Your task to perform on an android device: Search for 3d printed chess sets on Etsy. Image 0: 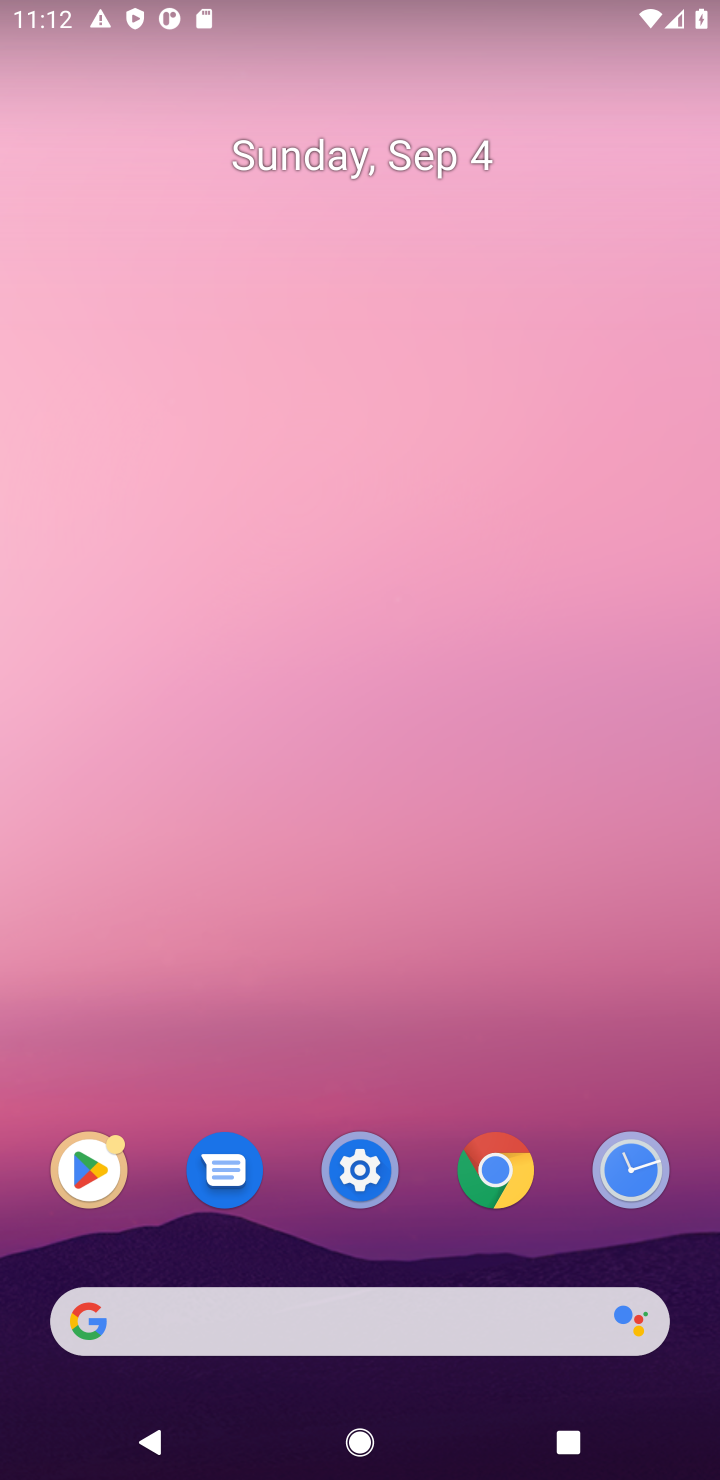
Step 0: click (336, 1316)
Your task to perform on an android device: Search for 3d printed chess sets on Etsy. Image 1: 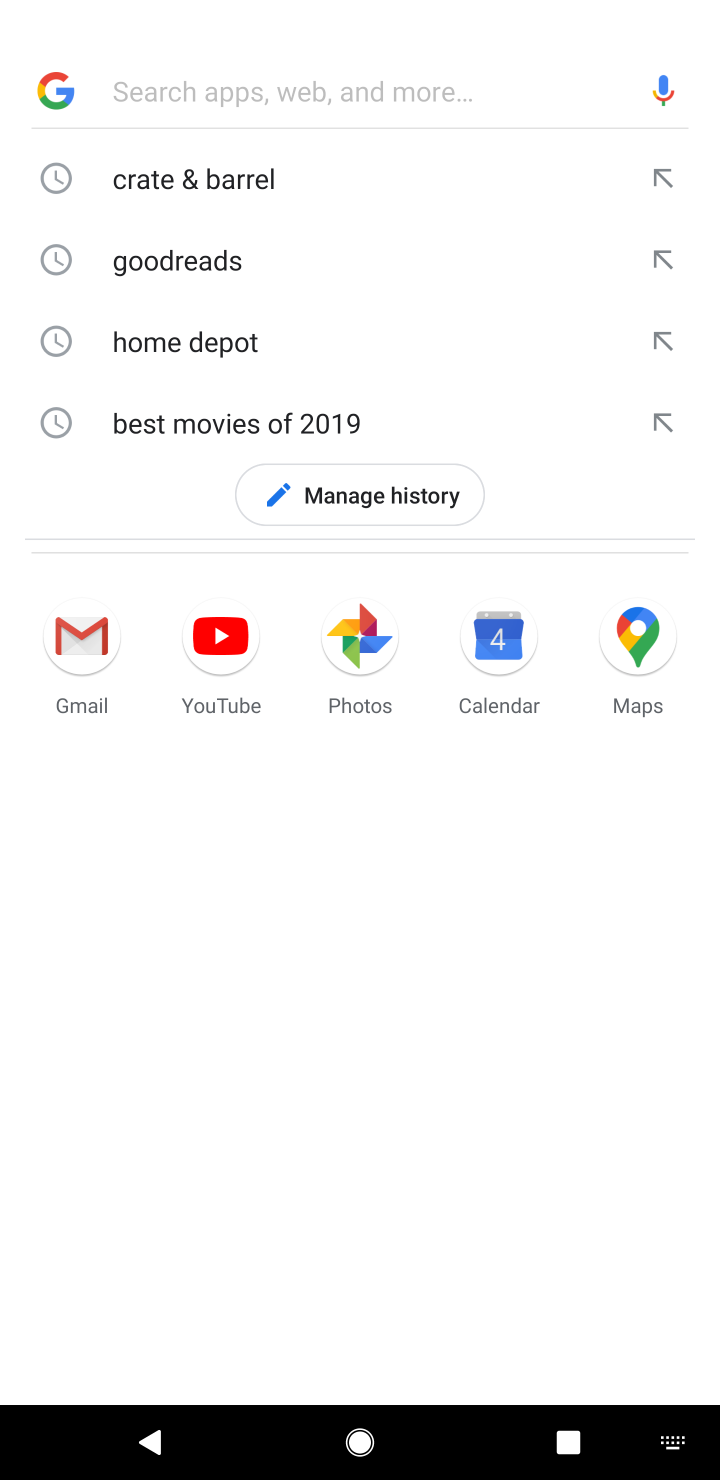
Step 1: type "Etsy"
Your task to perform on an android device: Search for 3d printed chess sets on Etsy. Image 2: 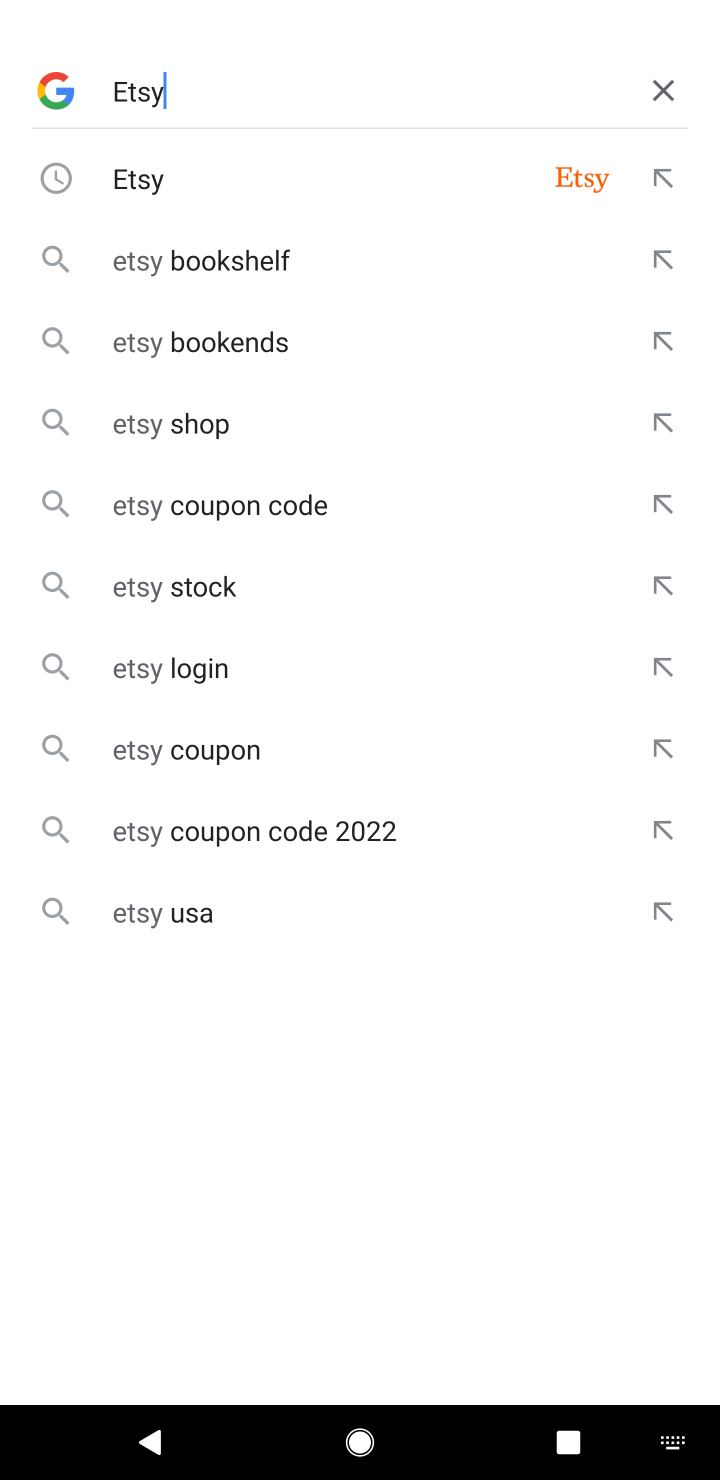
Step 2: click (169, 170)
Your task to perform on an android device: Search for 3d printed chess sets on Etsy. Image 3: 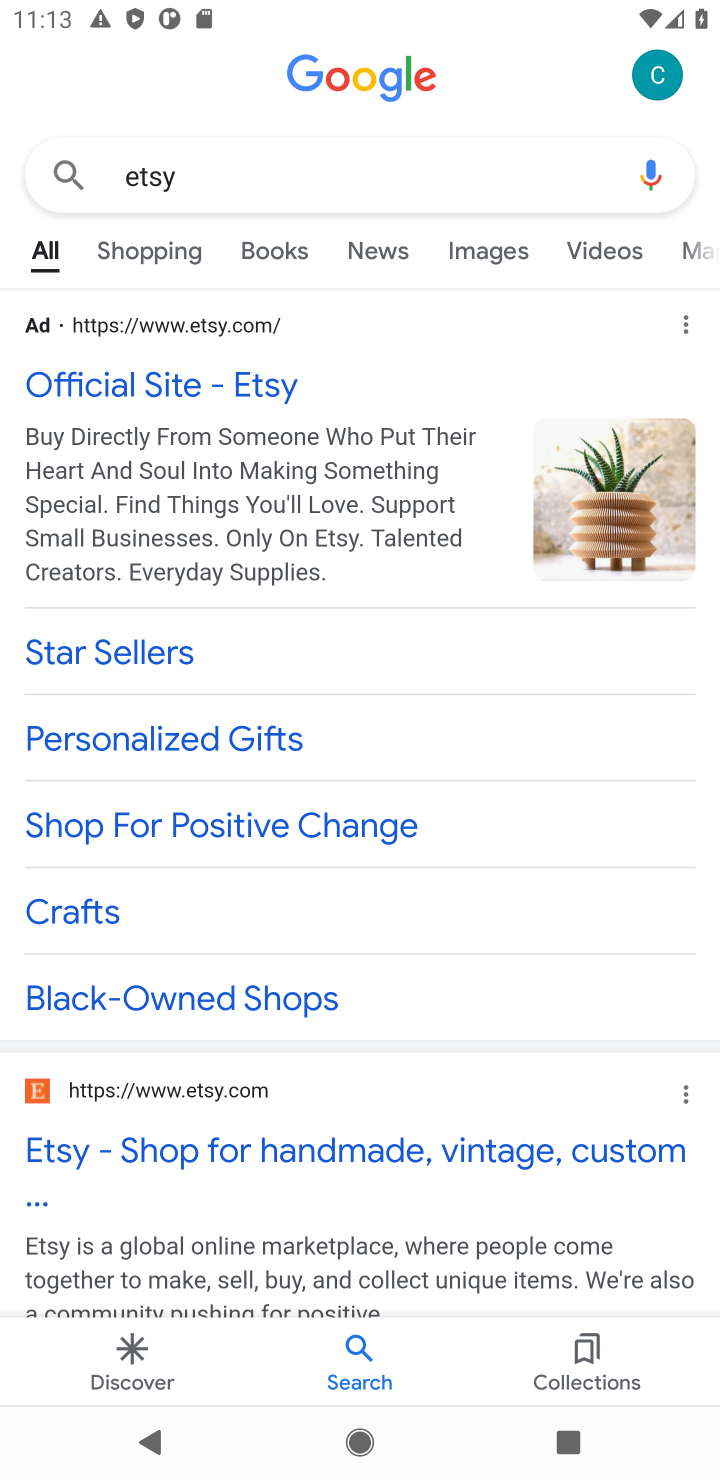
Step 3: click (333, 1164)
Your task to perform on an android device: Search for 3d printed chess sets on Etsy. Image 4: 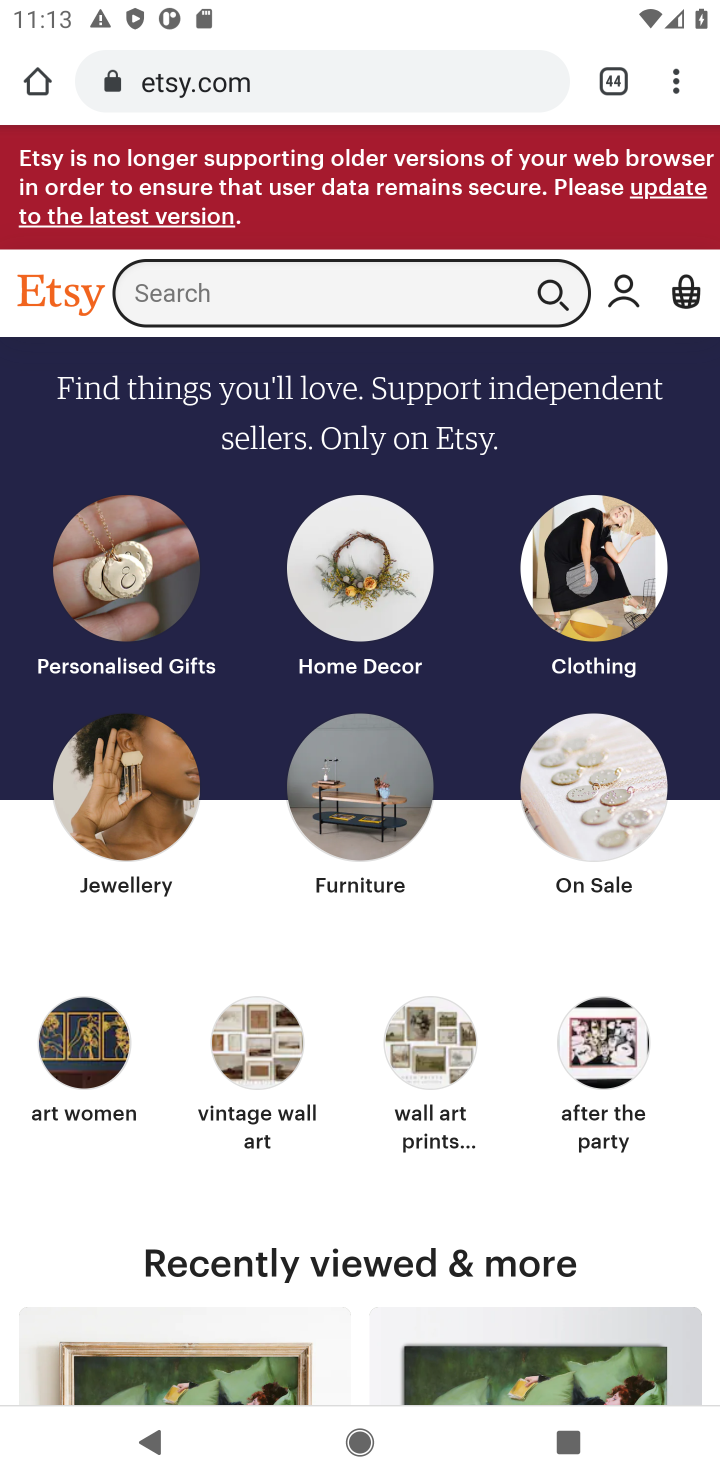
Step 4: type "3d printed chess"
Your task to perform on an android device: Search for 3d printed chess sets on Etsy. Image 5: 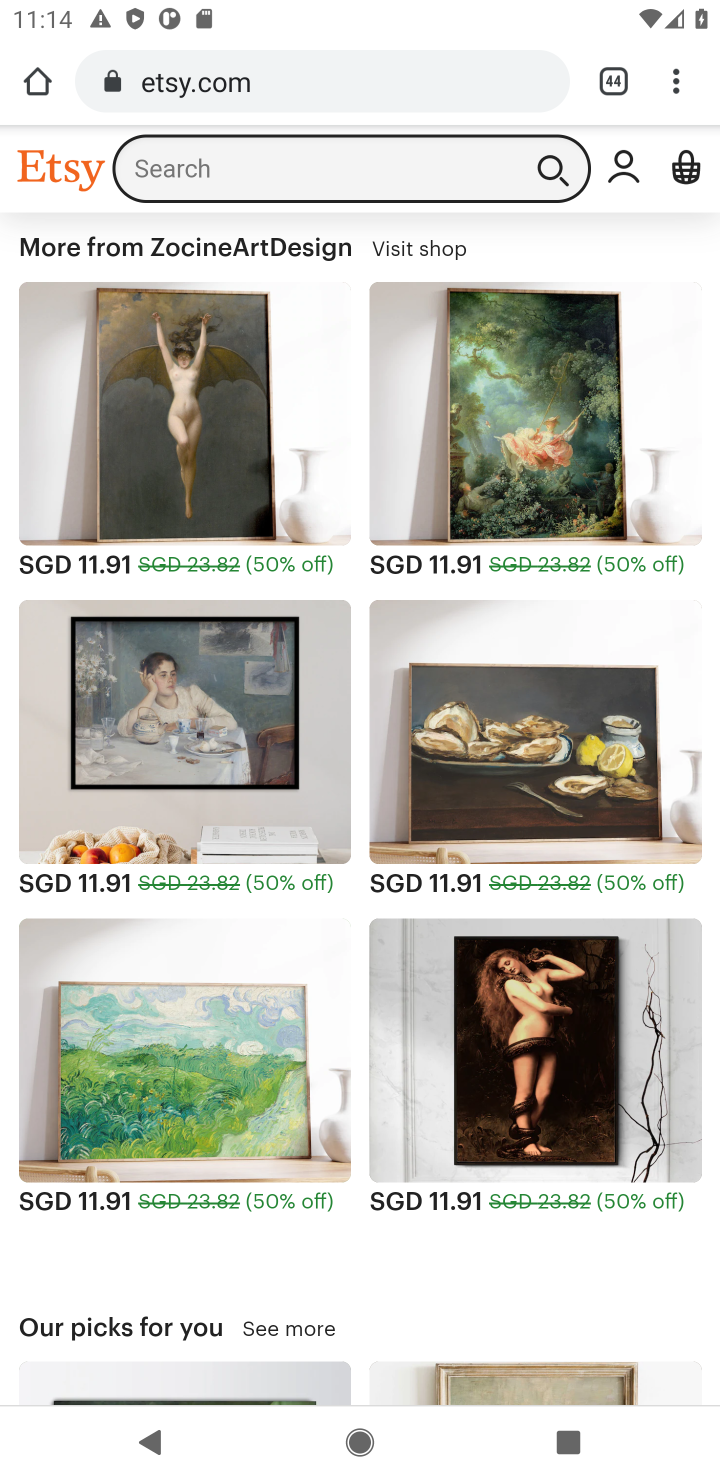
Step 5: click (229, 153)
Your task to perform on an android device: Search for 3d printed chess sets on Etsy. Image 6: 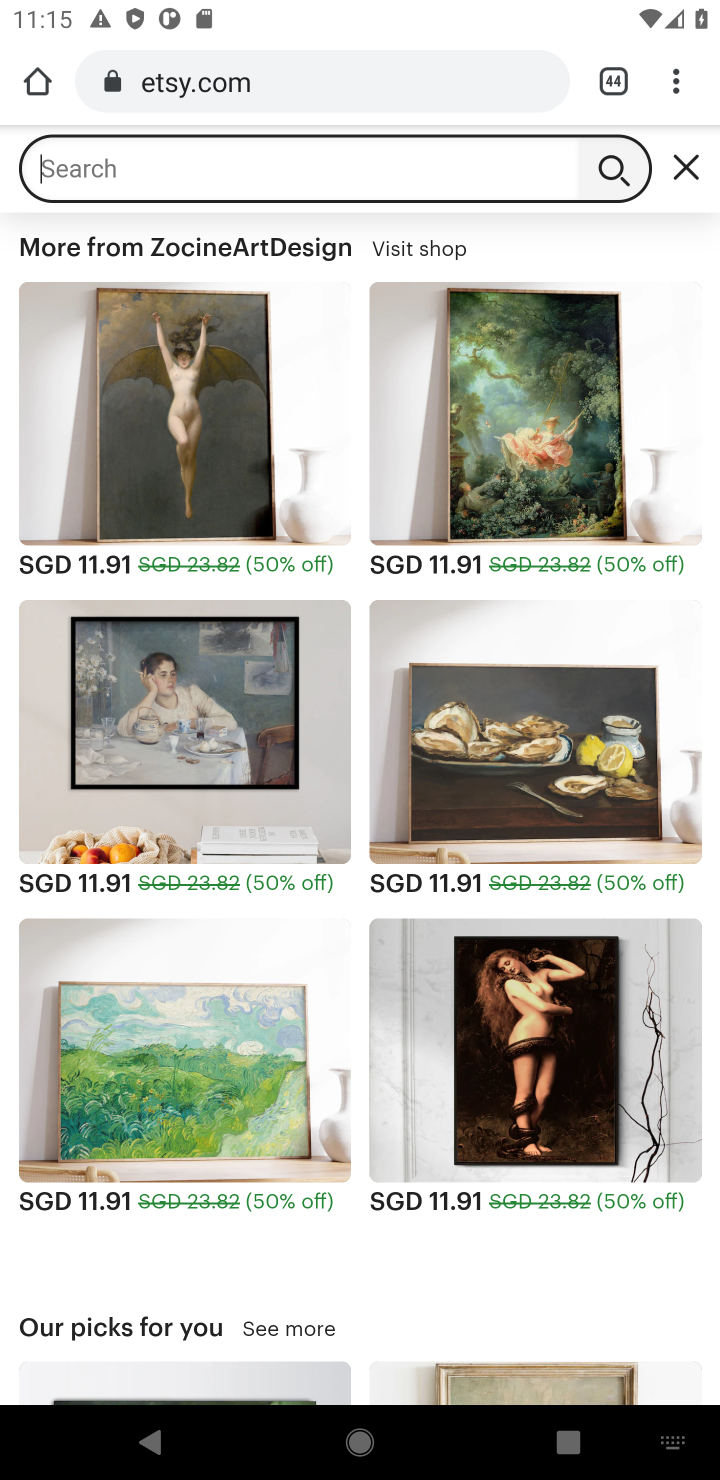
Step 6: task complete